Your task to perform on an android device: Open Google Chrome and click the shortcut for Amazon.com Image 0: 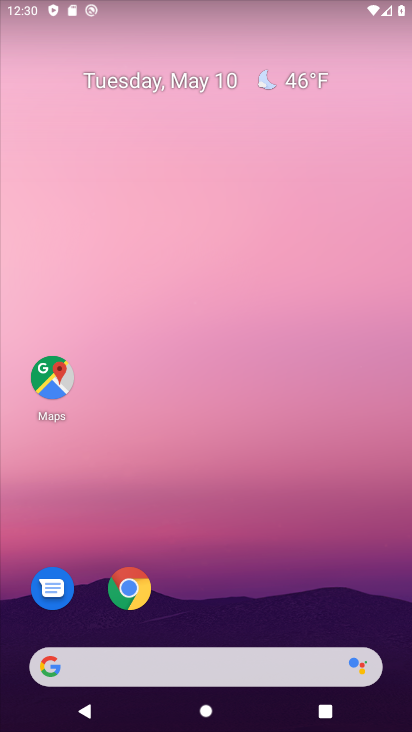
Step 0: drag from (212, 634) to (307, 3)
Your task to perform on an android device: Open Google Chrome and click the shortcut for Amazon.com Image 1: 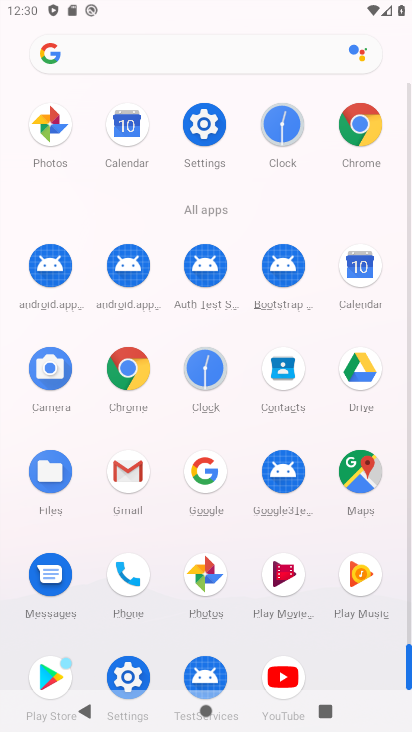
Step 1: click (358, 132)
Your task to perform on an android device: Open Google Chrome and click the shortcut for Amazon.com Image 2: 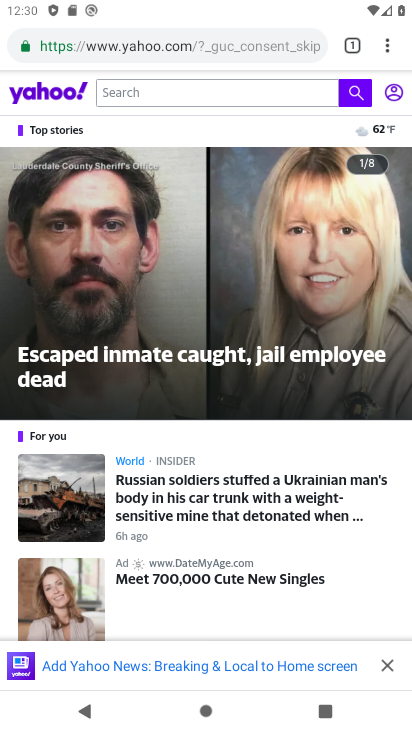
Step 2: click (333, 55)
Your task to perform on an android device: Open Google Chrome and click the shortcut for Amazon.com Image 3: 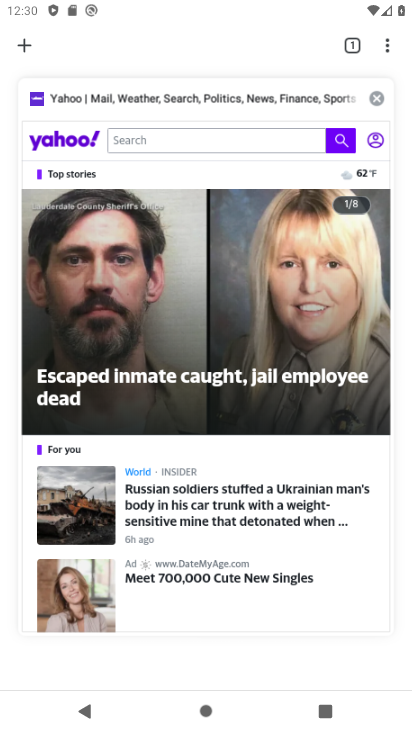
Step 3: click (22, 50)
Your task to perform on an android device: Open Google Chrome and click the shortcut for Amazon.com Image 4: 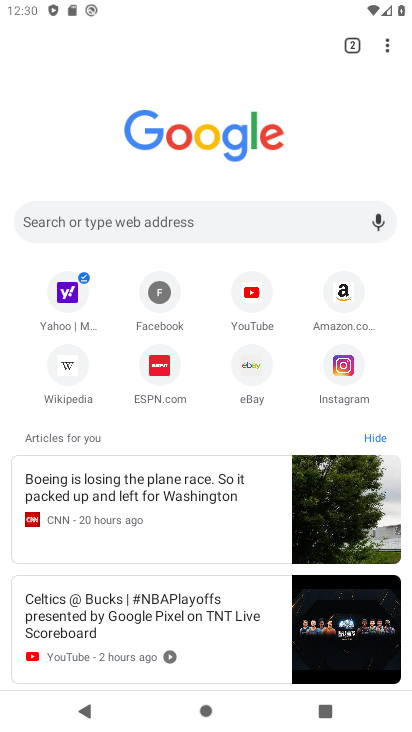
Step 4: click (355, 290)
Your task to perform on an android device: Open Google Chrome and click the shortcut for Amazon.com Image 5: 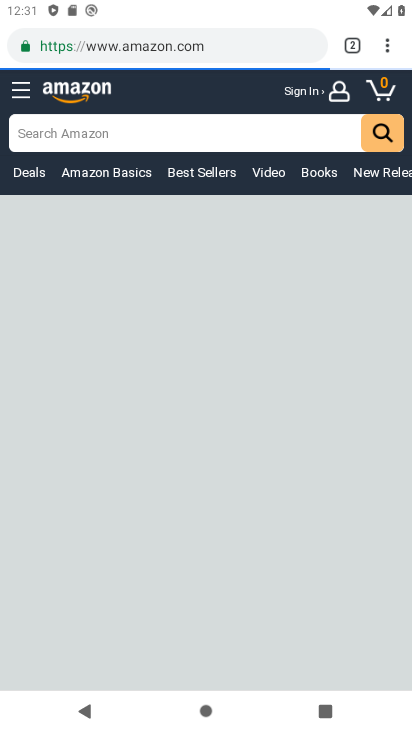
Step 5: task complete